Your task to perform on an android device: Is it going to rain tomorrow? Image 0: 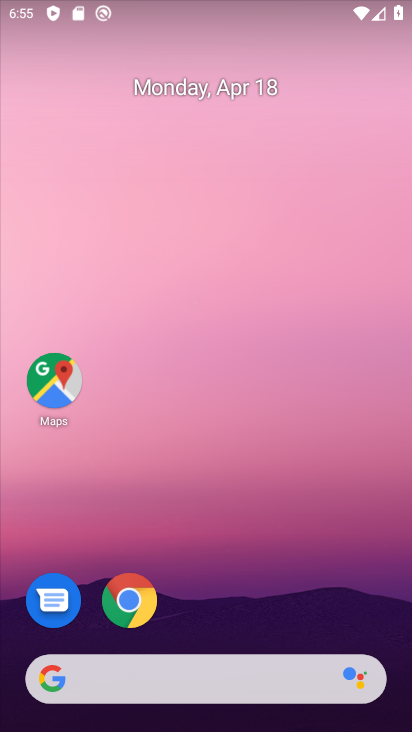
Step 0: drag from (242, 588) to (208, 0)
Your task to perform on an android device: Is it going to rain tomorrow? Image 1: 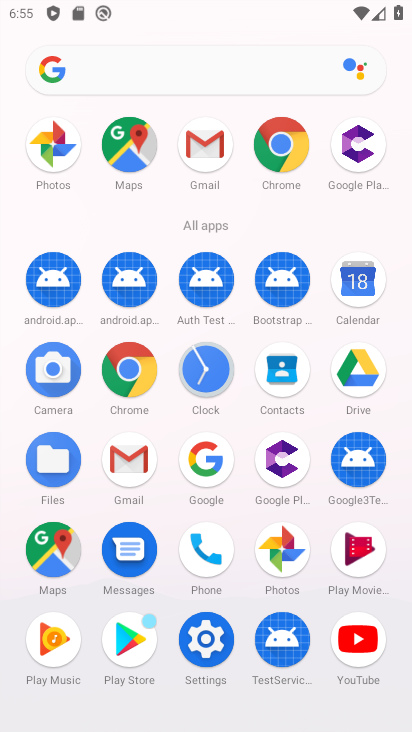
Step 1: drag from (174, 601) to (255, 34)
Your task to perform on an android device: Is it going to rain tomorrow? Image 2: 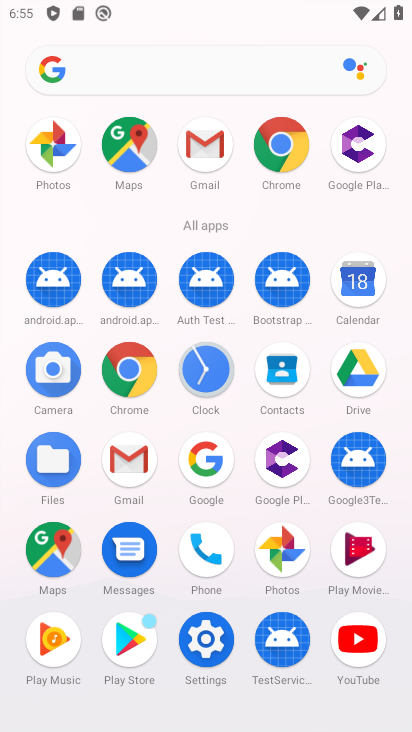
Step 2: click (207, 462)
Your task to perform on an android device: Is it going to rain tomorrow? Image 3: 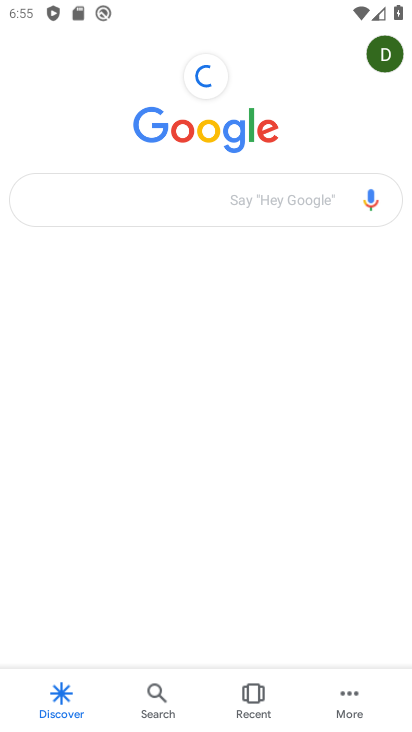
Step 3: click (169, 204)
Your task to perform on an android device: Is it going to rain tomorrow? Image 4: 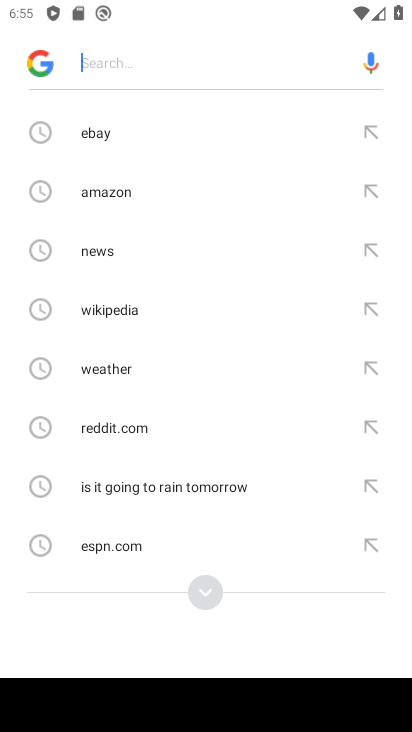
Step 4: click (186, 492)
Your task to perform on an android device: Is it going to rain tomorrow? Image 5: 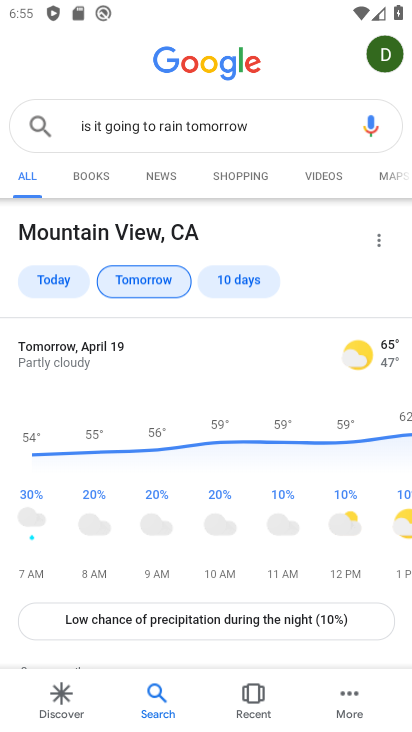
Step 5: task complete